Your task to perform on an android device: open app "Google Duo" (install if not already installed) Image 0: 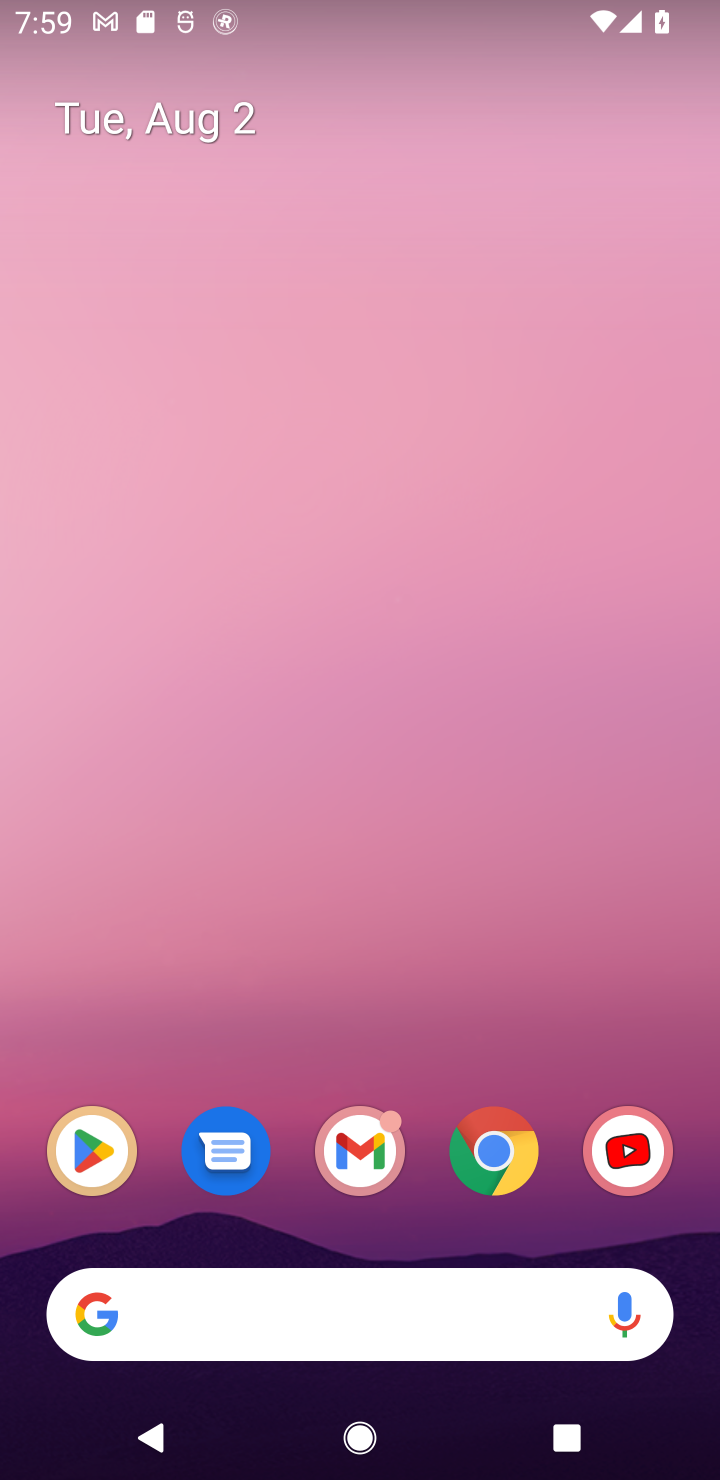
Step 0: click (77, 1144)
Your task to perform on an android device: open app "Google Duo" (install if not already installed) Image 1: 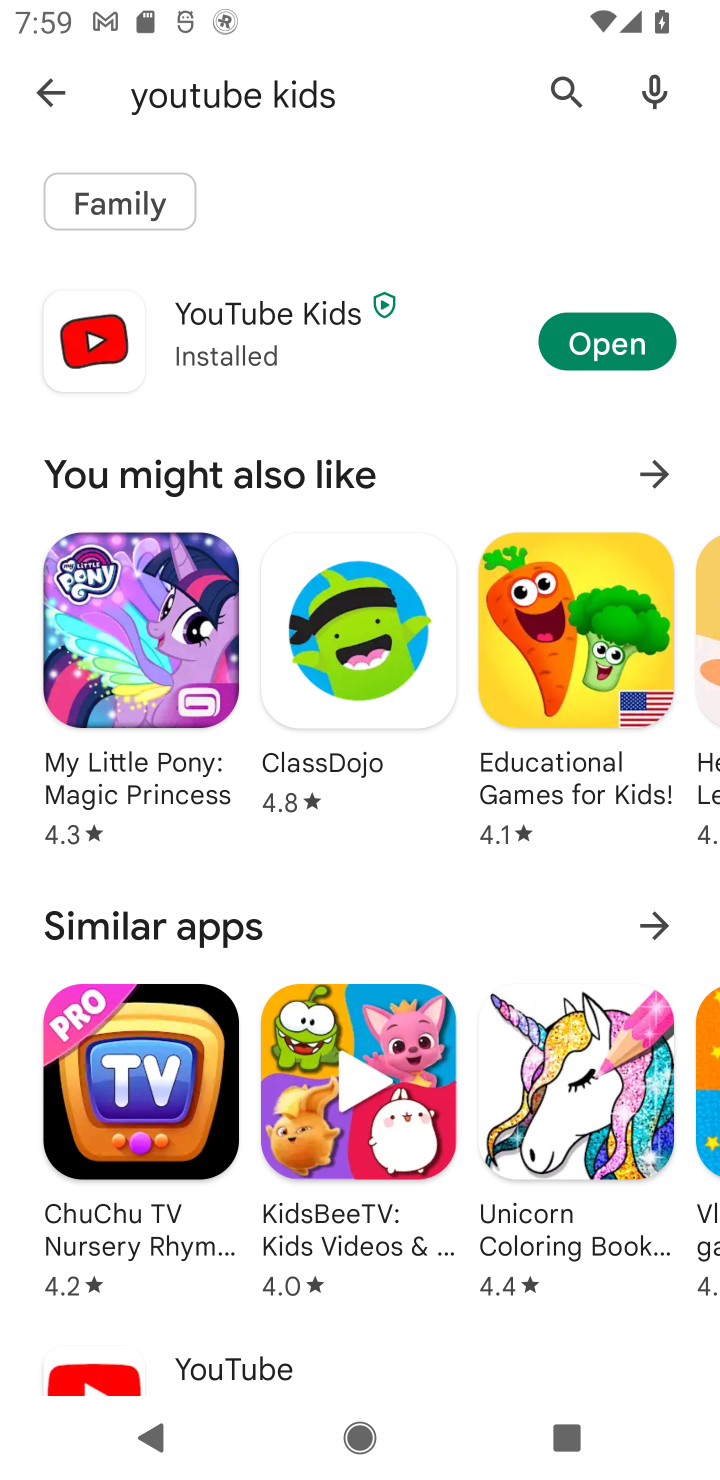
Step 1: click (554, 108)
Your task to perform on an android device: open app "Google Duo" (install if not already installed) Image 2: 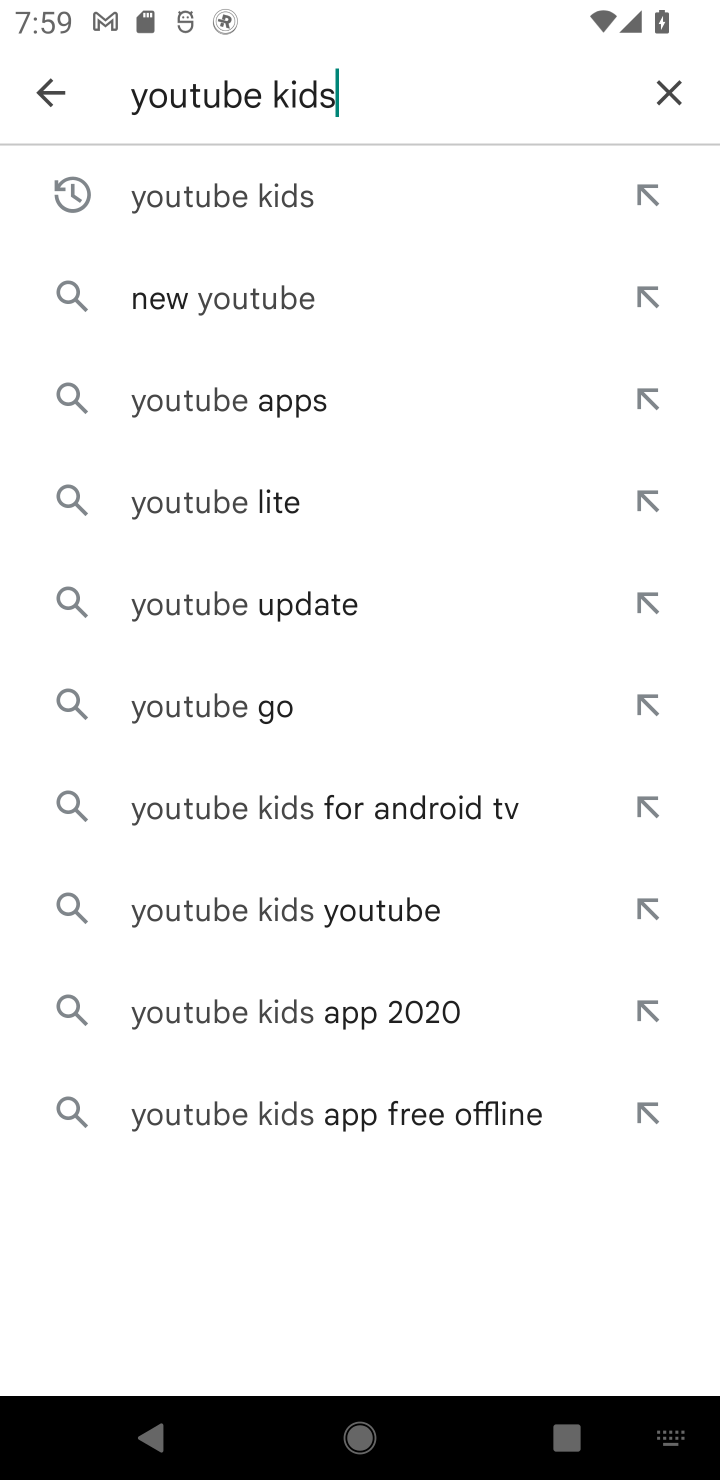
Step 2: click (678, 91)
Your task to perform on an android device: open app "Google Duo" (install if not already installed) Image 3: 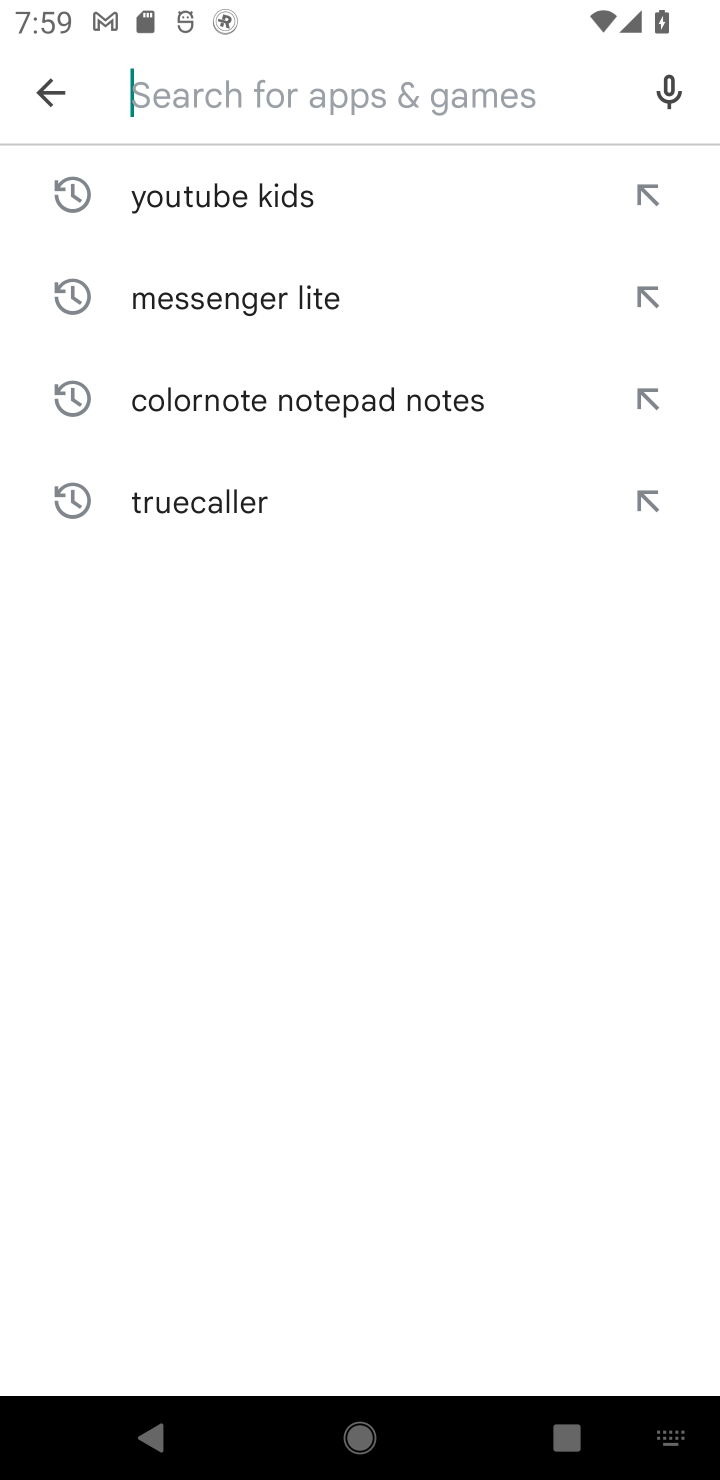
Step 3: type "Google Duo"
Your task to perform on an android device: open app "Google Duo" (install if not already installed) Image 4: 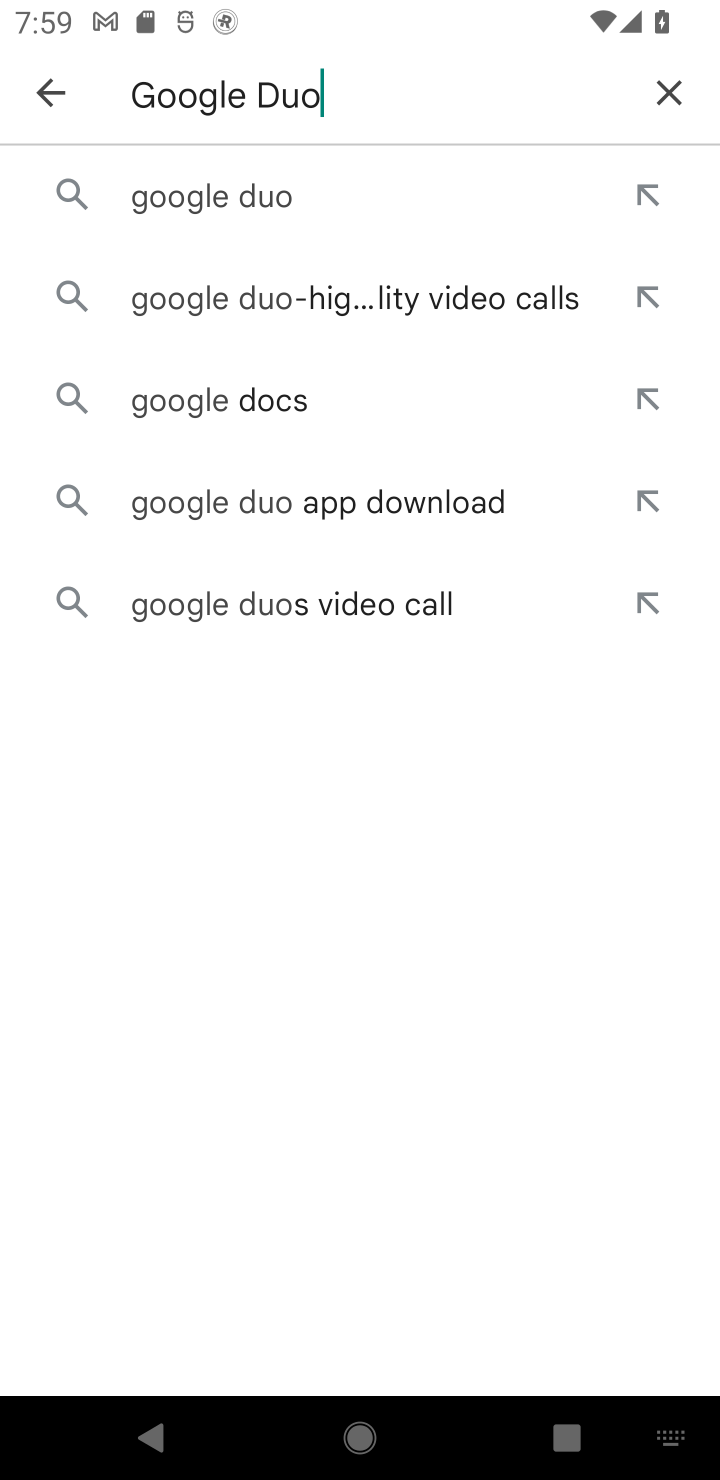
Step 4: click (261, 219)
Your task to perform on an android device: open app "Google Duo" (install if not already installed) Image 5: 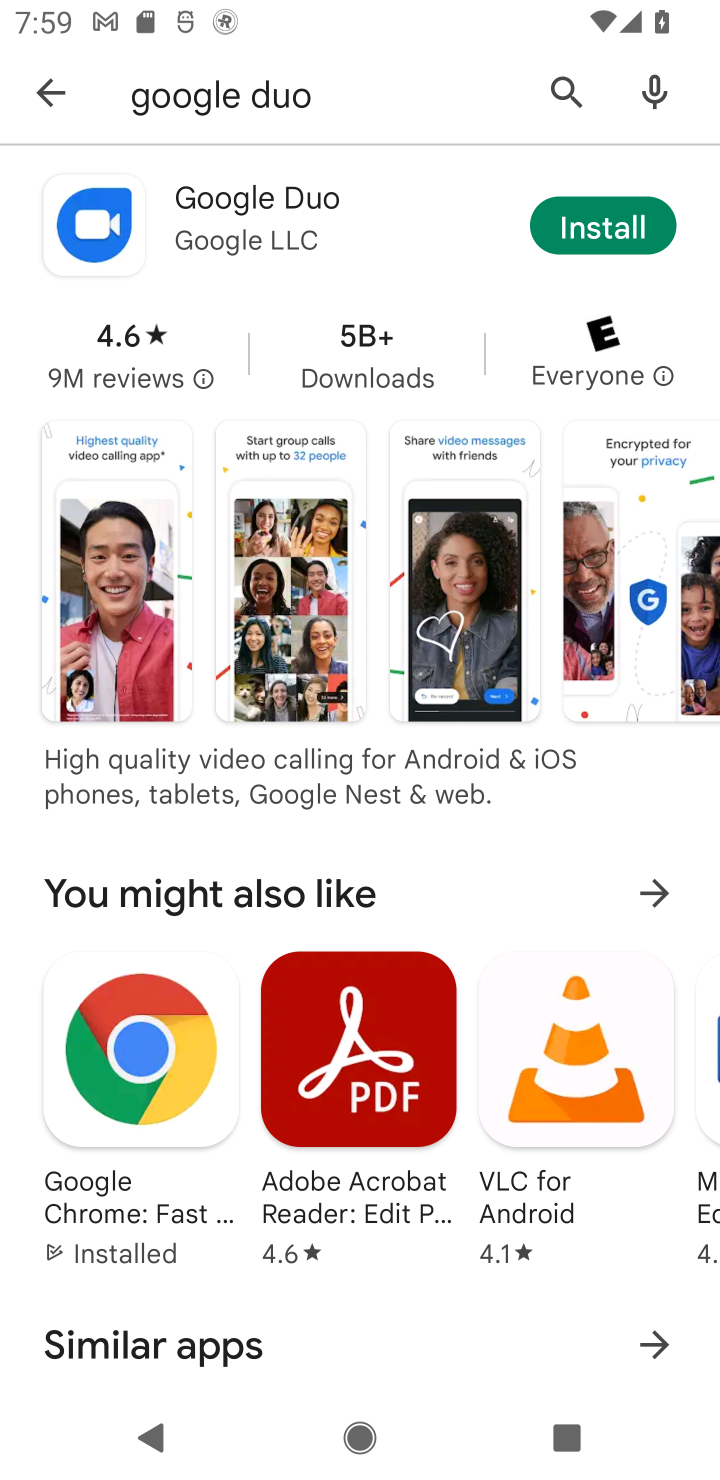
Step 5: click (619, 216)
Your task to perform on an android device: open app "Google Duo" (install if not already installed) Image 6: 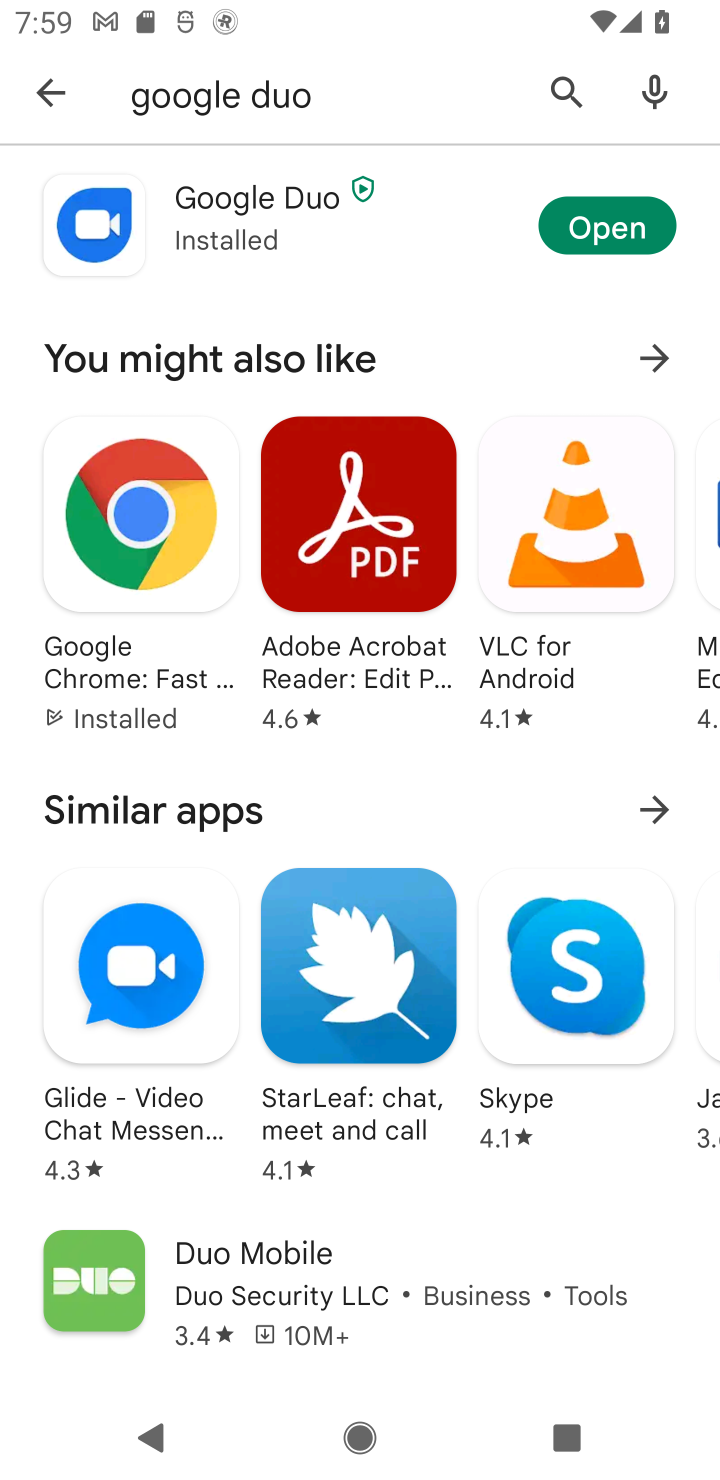
Step 6: click (613, 220)
Your task to perform on an android device: open app "Google Duo" (install if not already installed) Image 7: 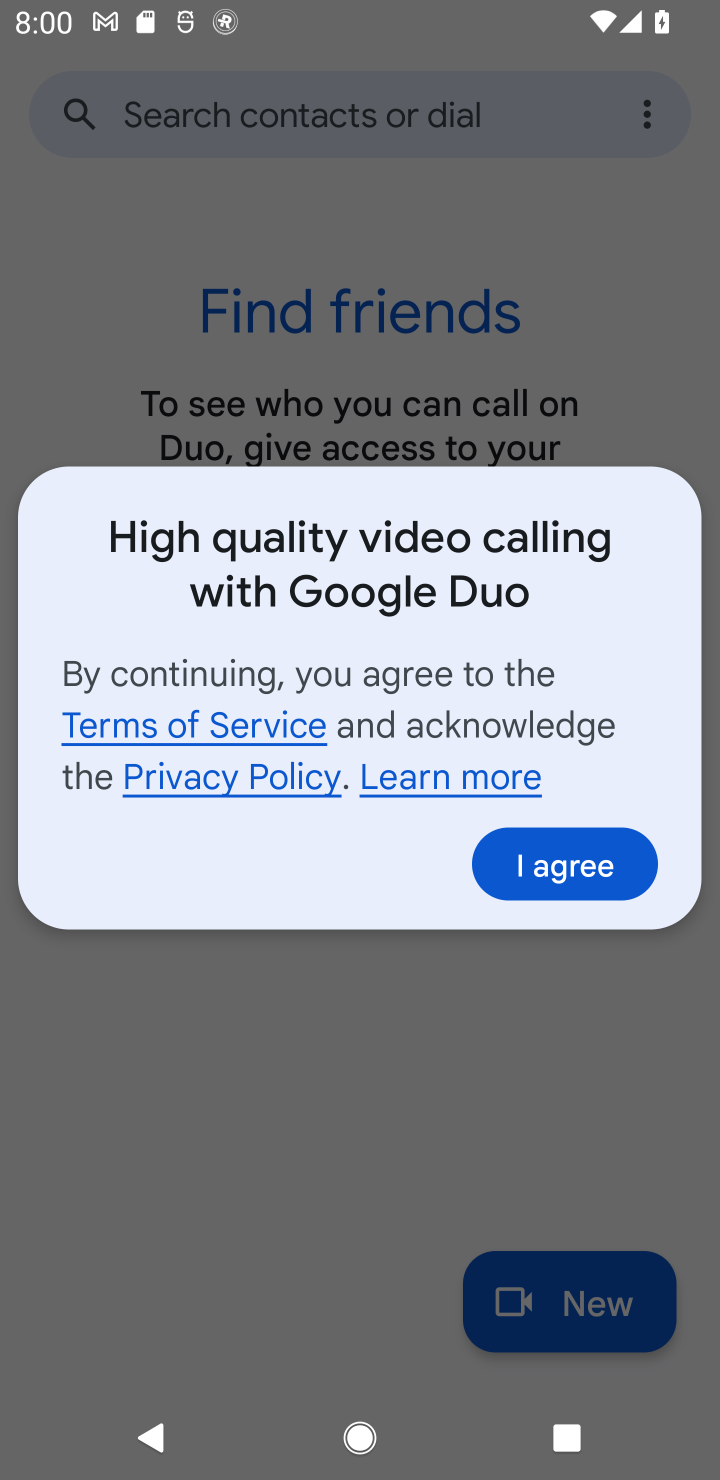
Step 7: task complete